Your task to perform on an android device: Add dell xps to the cart on newegg.com Image 0: 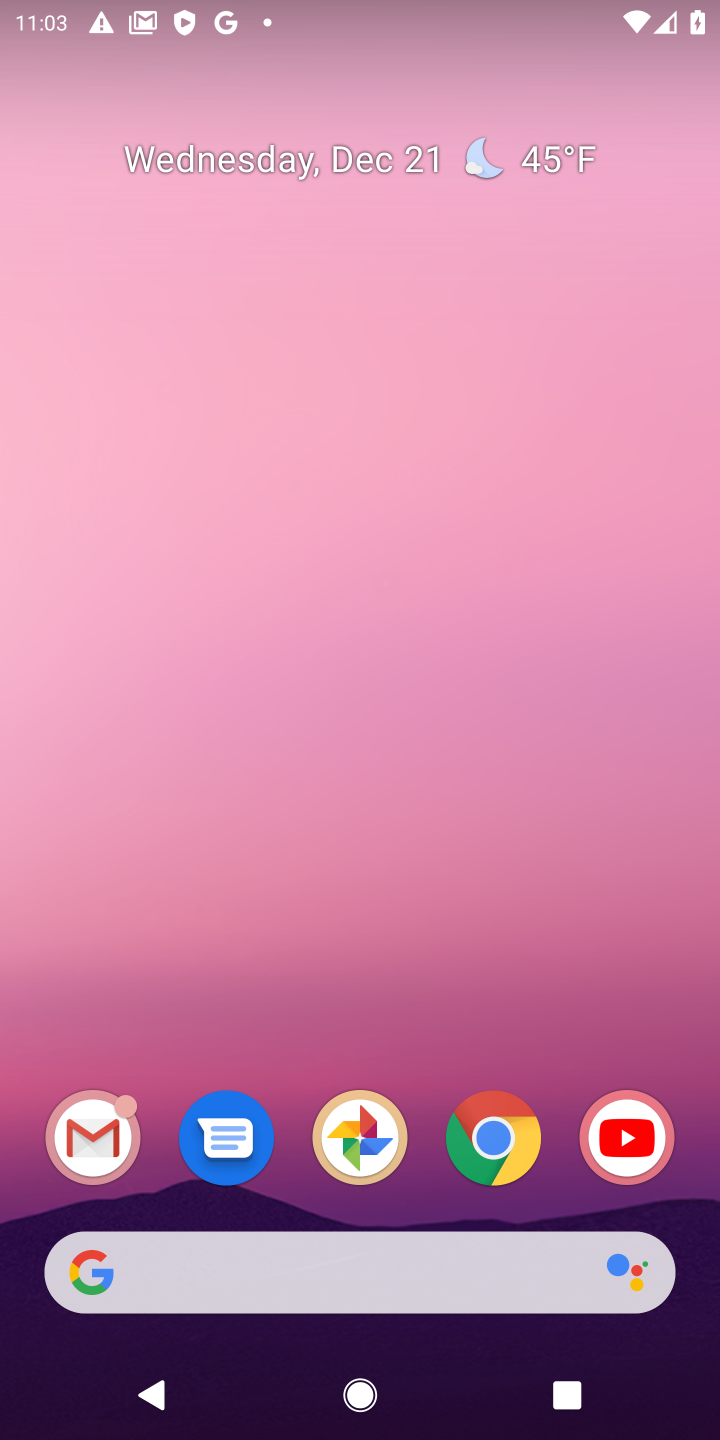
Step 0: click (493, 1156)
Your task to perform on an android device: Add dell xps to the cart on newegg.com Image 1: 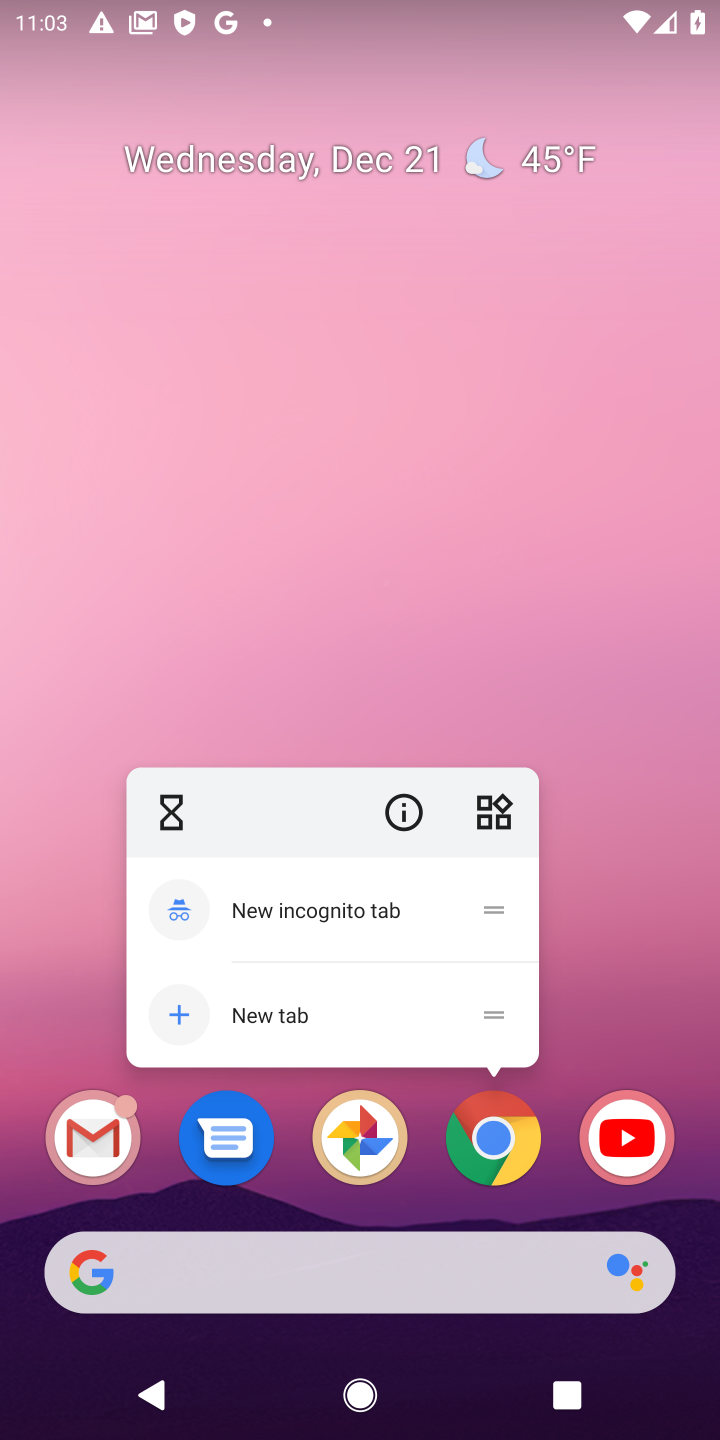
Step 1: click (502, 1136)
Your task to perform on an android device: Add dell xps to the cart on newegg.com Image 2: 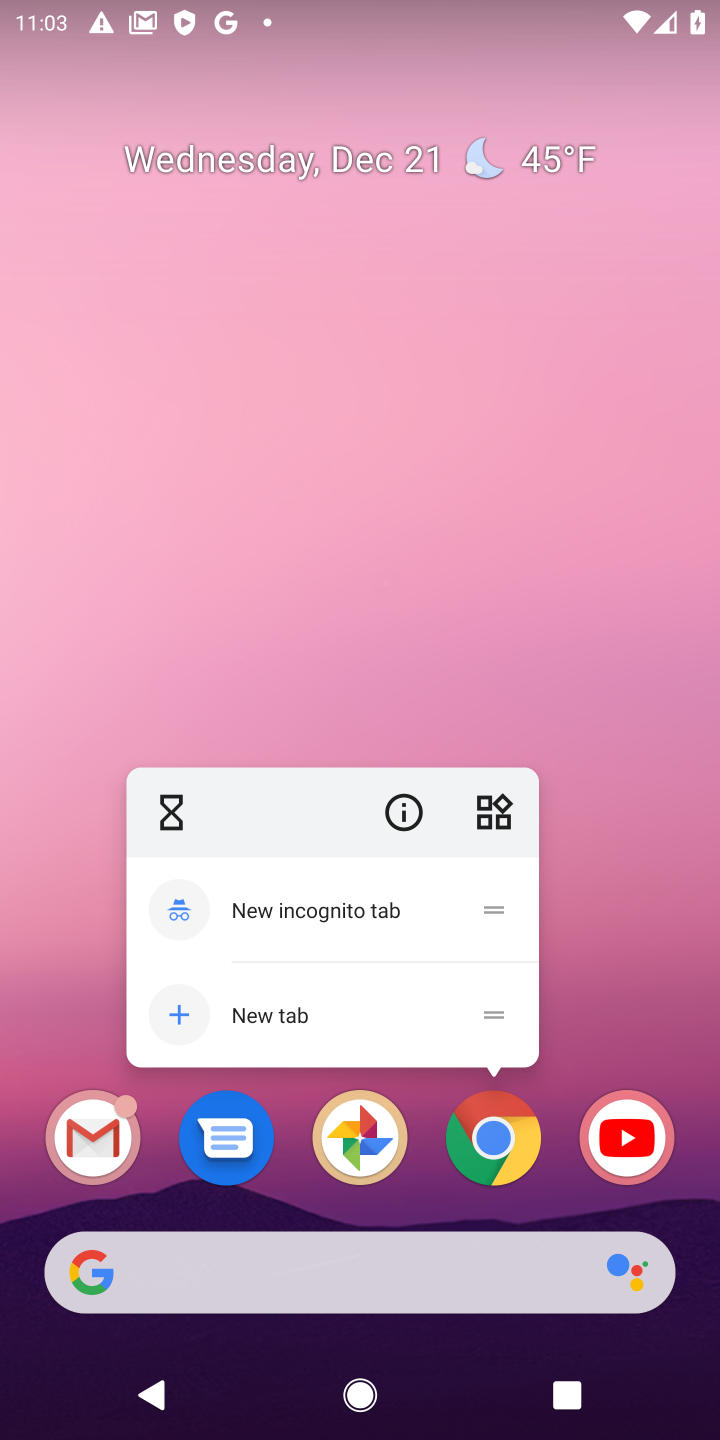
Step 2: click (502, 1152)
Your task to perform on an android device: Add dell xps to the cart on newegg.com Image 3: 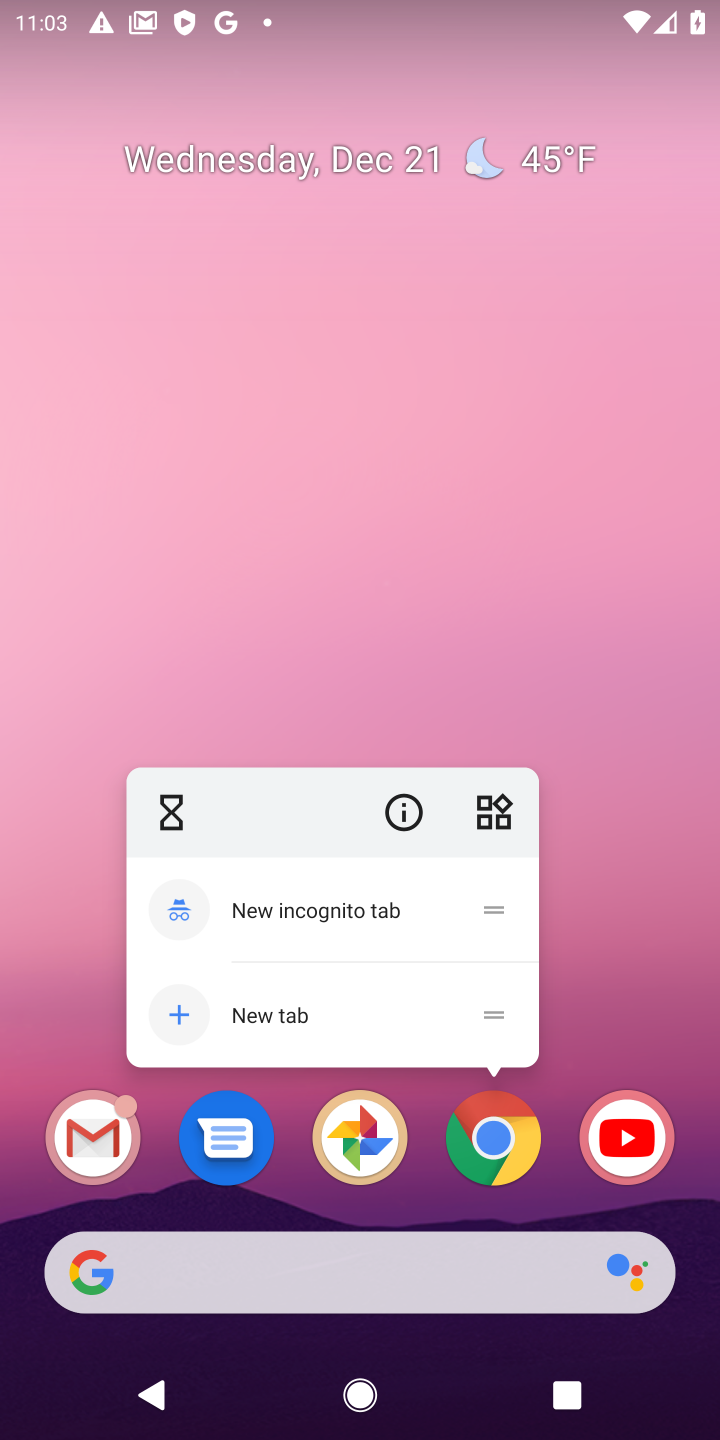
Step 3: click (502, 1152)
Your task to perform on an android device: Add dell xps to the cart on newegg.com Image 4: 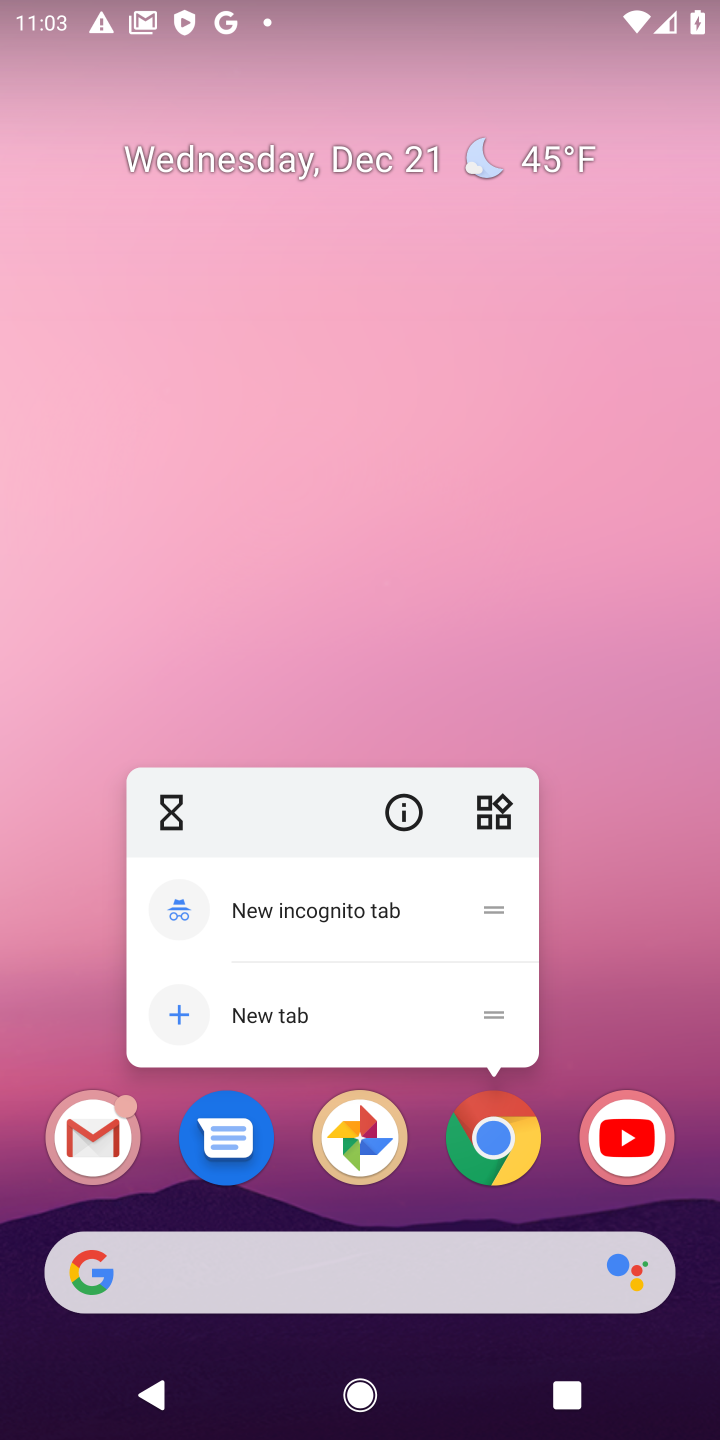
Step 4: click (494, 1159)
Your task to perform on an android device: Add dell xps to the cart on newegg.com Image 5: 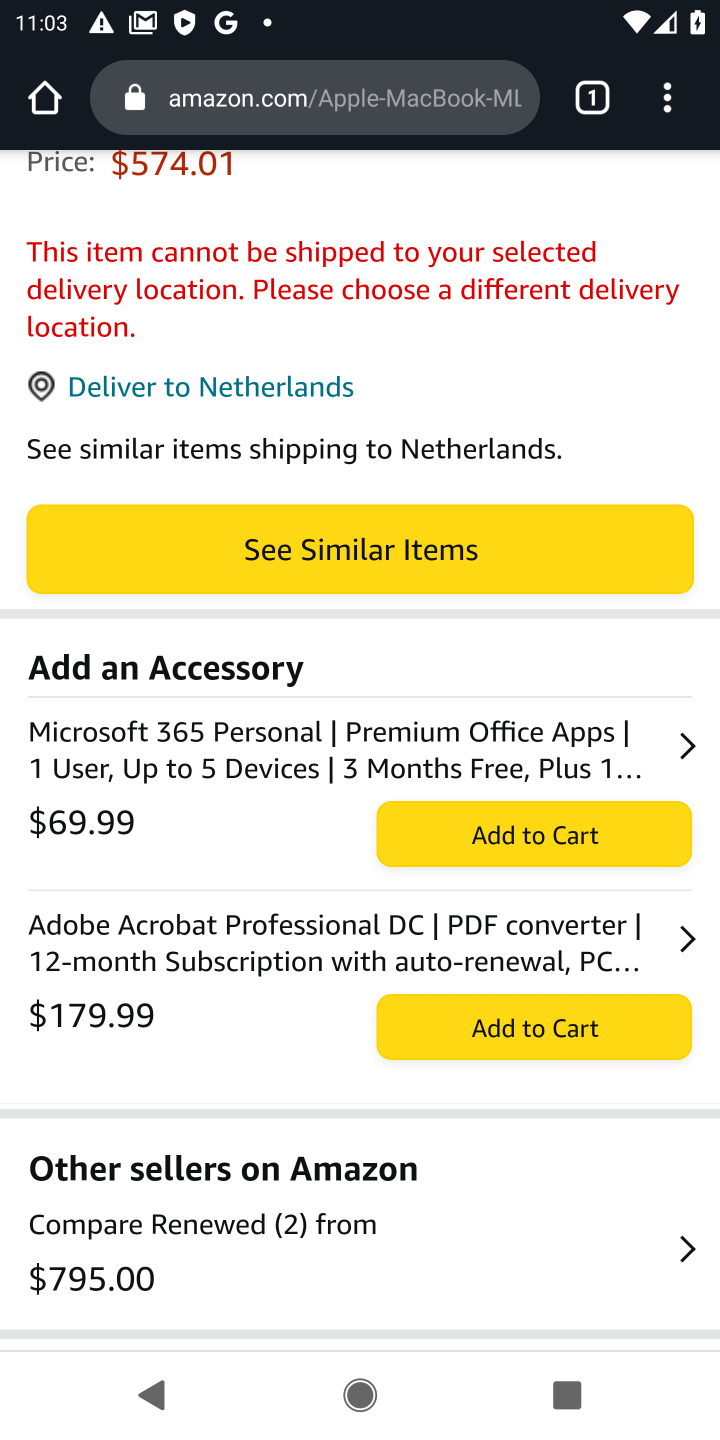
Step 5: click (262, 108)
Your task to perform on an android device: Add dell xps to the cart on newegg.com Image 6: 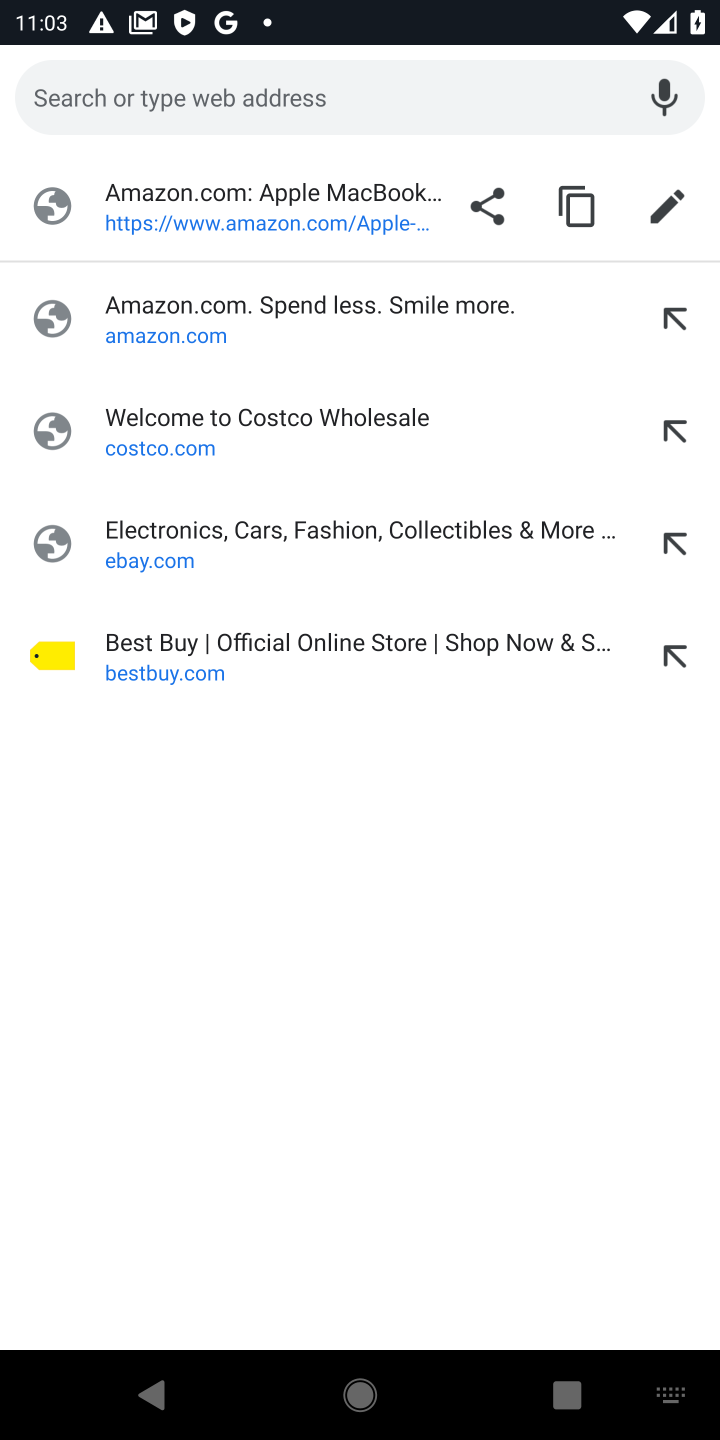
Step 6: type "newegg.com"
Your task to perform on an android device: Add dell xps to the cart on newegg.com Image 7: 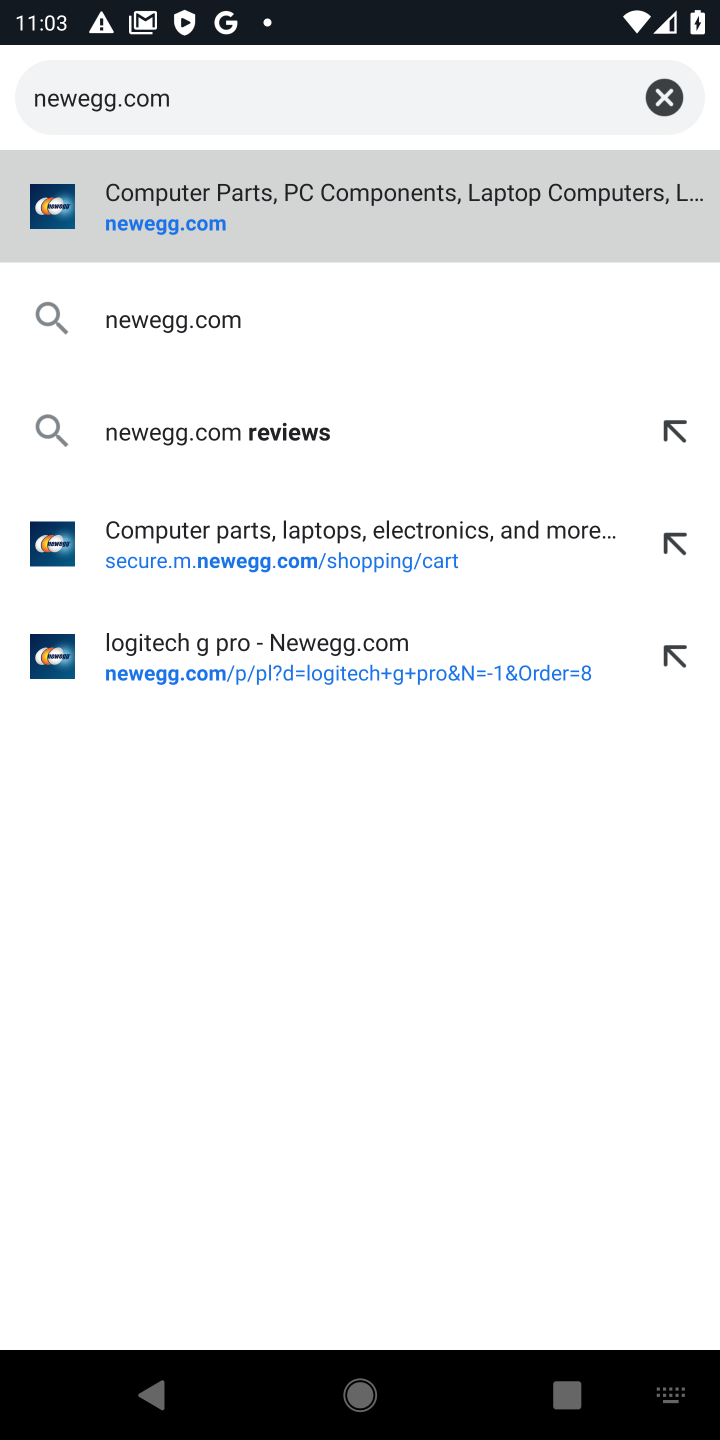
Step 7: click (163, 224)
Your task to perform on an android device: Add dell xps to the cart on newegg.com Image 8: 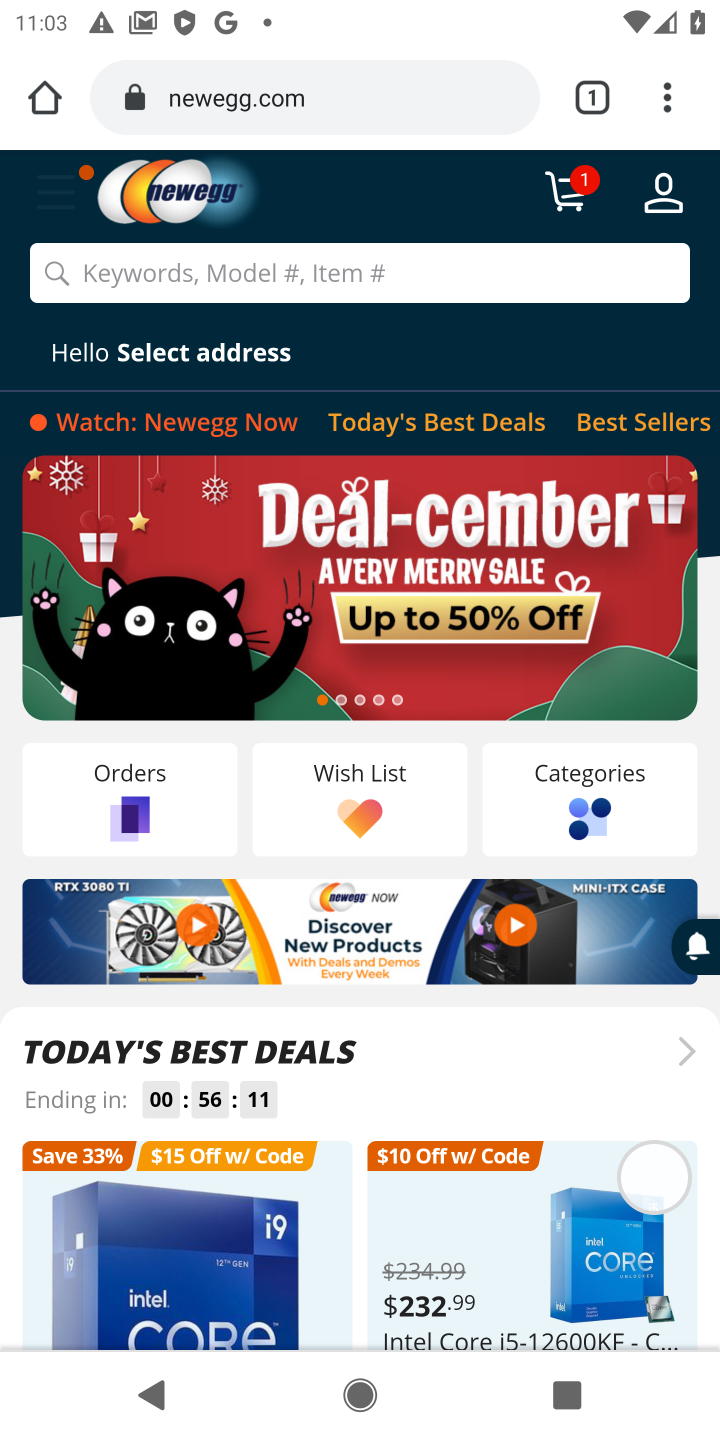
Step 8: click (160, 270)
Your task to perform on an android device: Add dell xps to the cart on newegg.com Image 9: 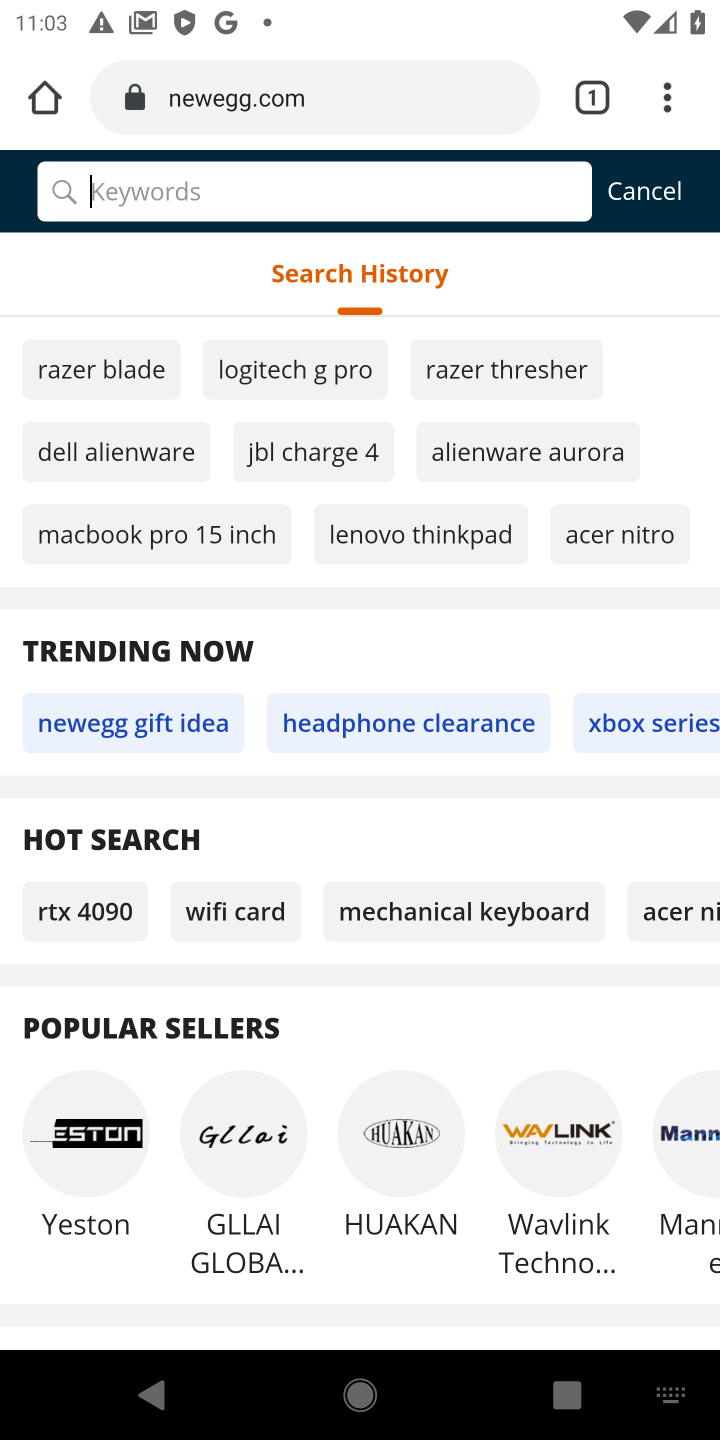
Step 9: type "dell xps"
Your task to perform on an android device: Add dell xps to the cart on newegg.com Image 10: 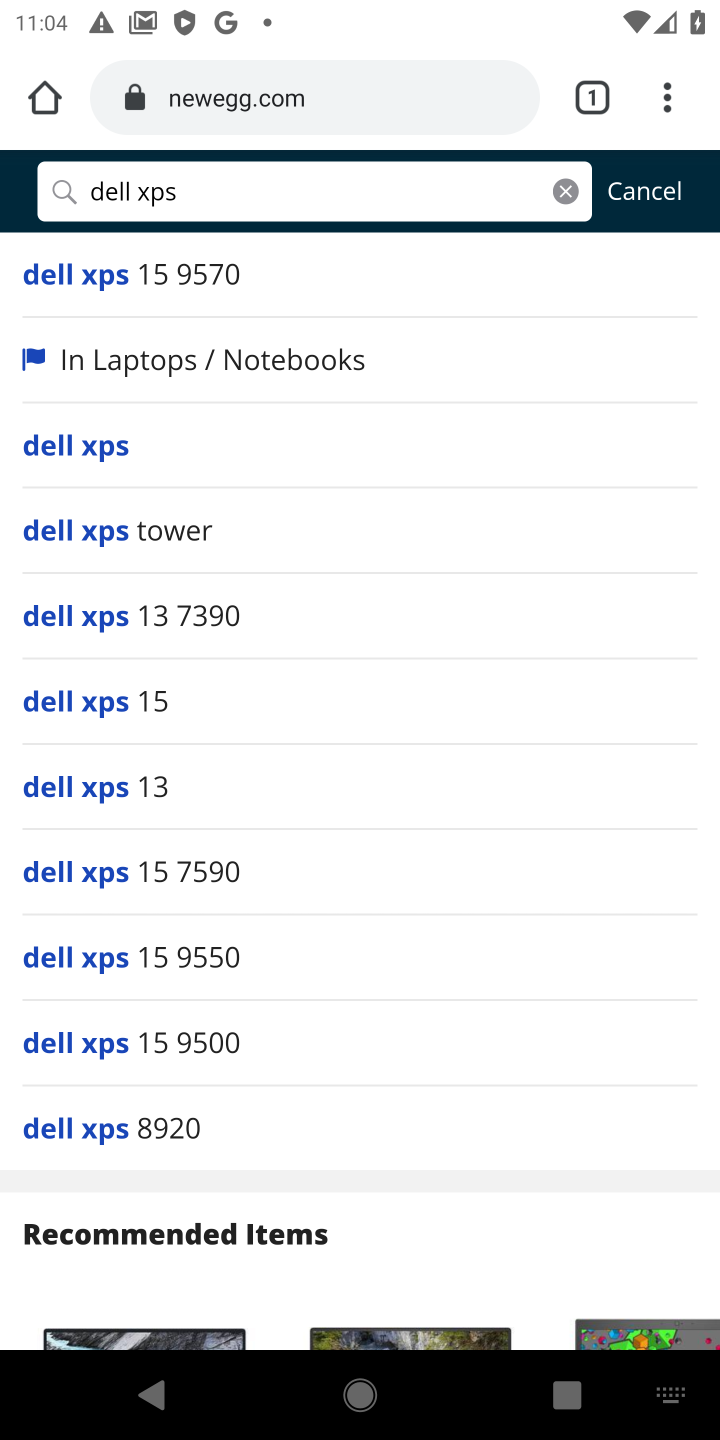
Step 10: click (104, 449)
Your task to perform on an android device: Add dell xps to the cart on newegg.com Image 11: 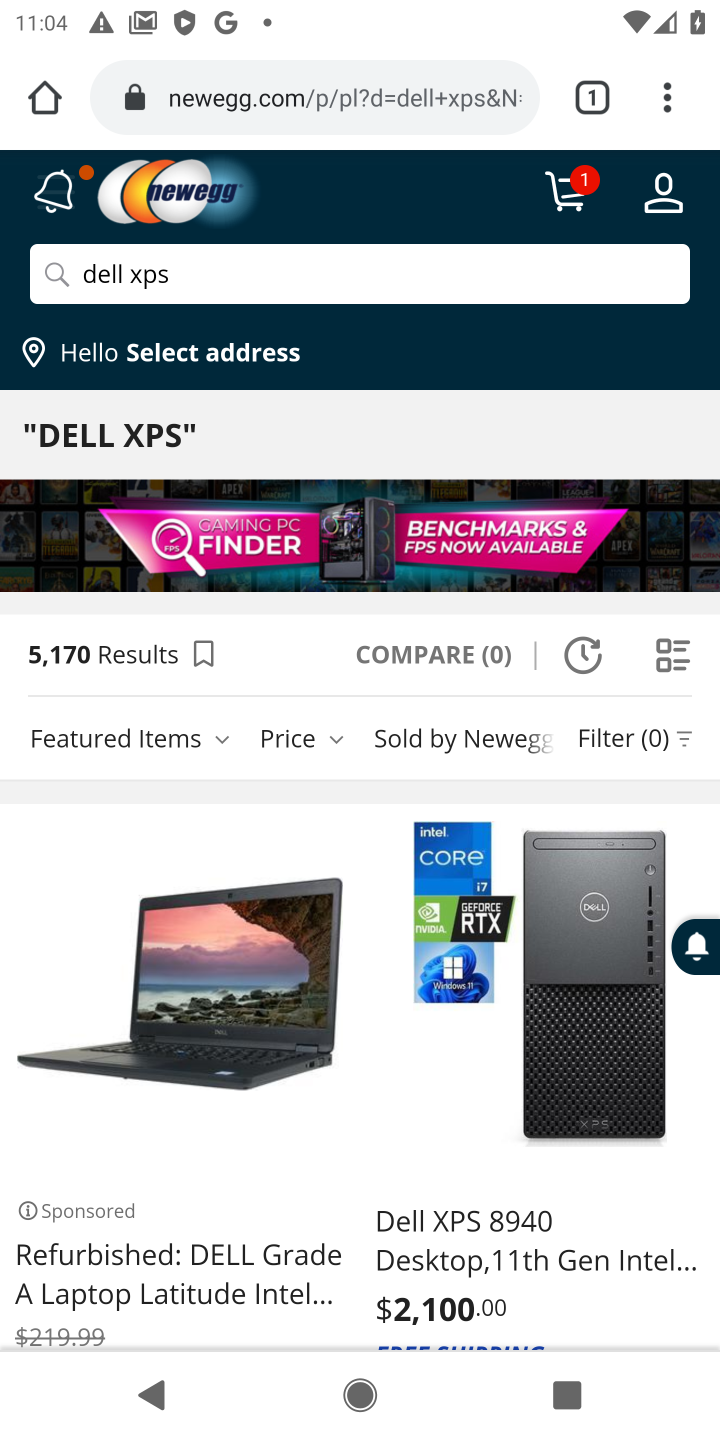
Step 11: drag from (224, 872) to (285, 408)
Your task to perform on an android device: Add dell xps to the cart on newegg.com Image 12: 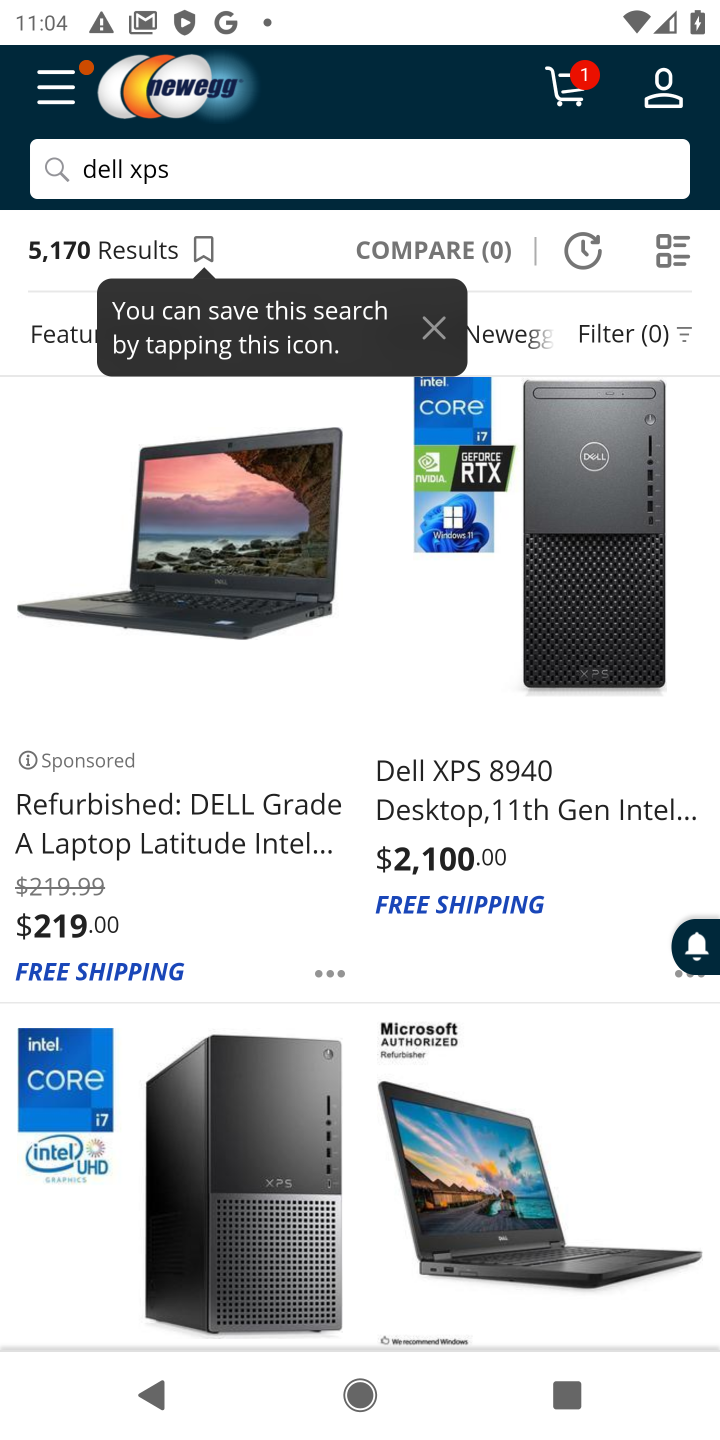
Step 12: click (515, 797)
Your task to perform on an android device: Add dell xps to the cart on newegg.com Image 13: 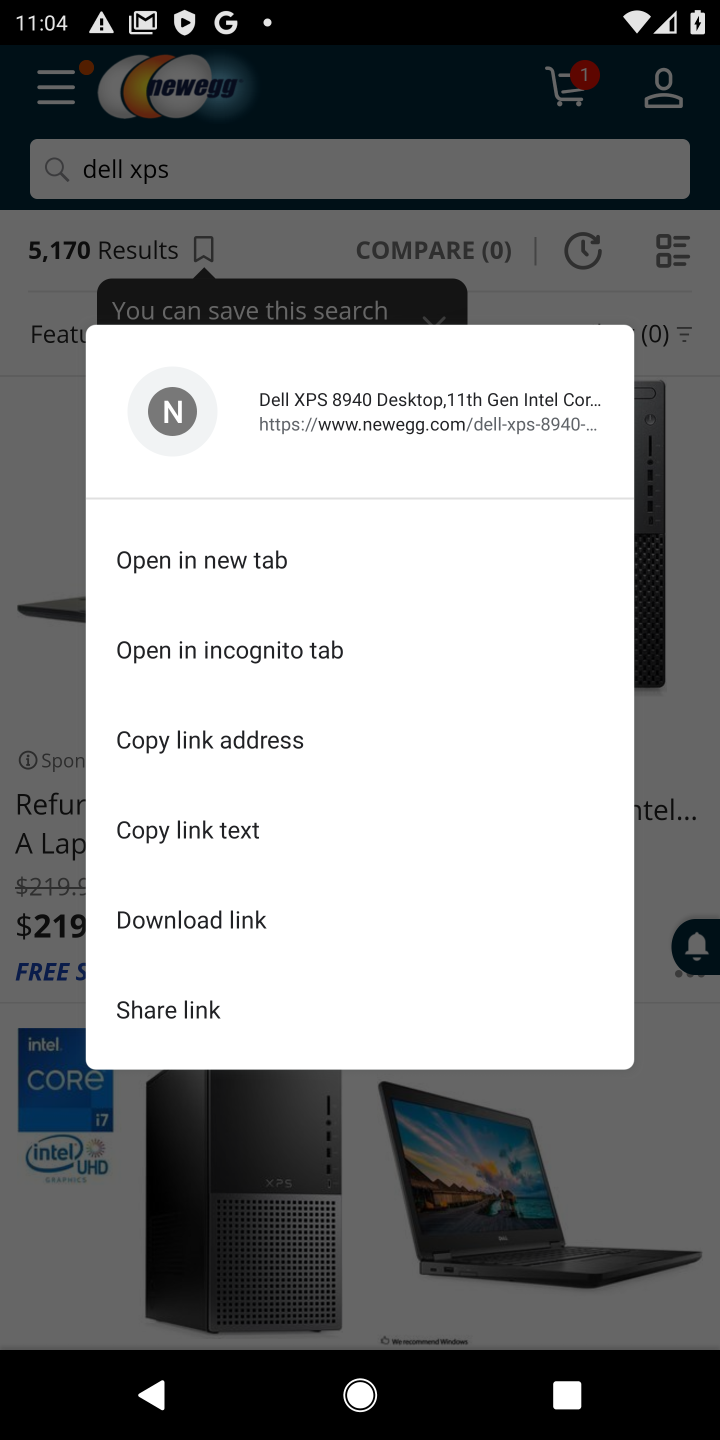
Step 13: click (681, 814)
Your task to perform on an android device: Add dell xps to the cart on newegg.com Image 14: 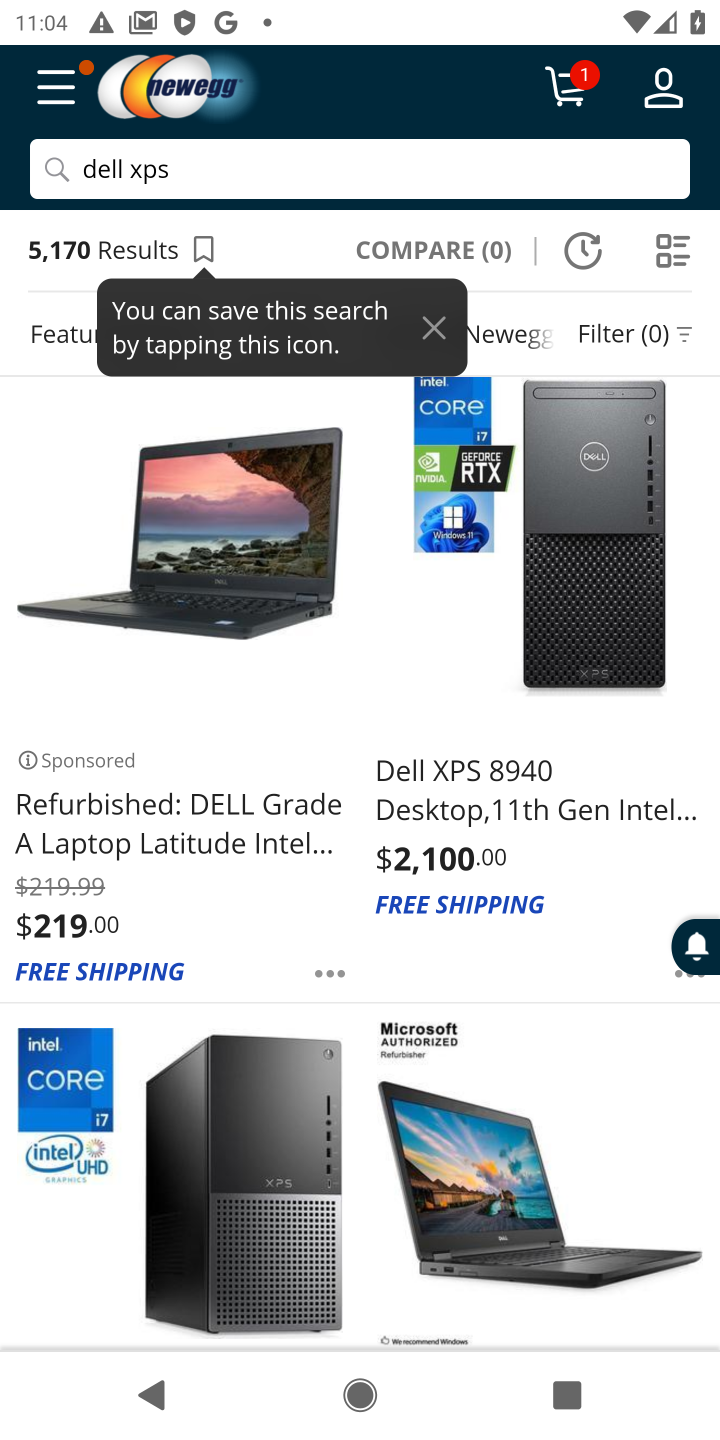
Step 14: click (474, 818)
Your task to perform on an android device: Add dell xps to the cart on newegg.com Image 15: 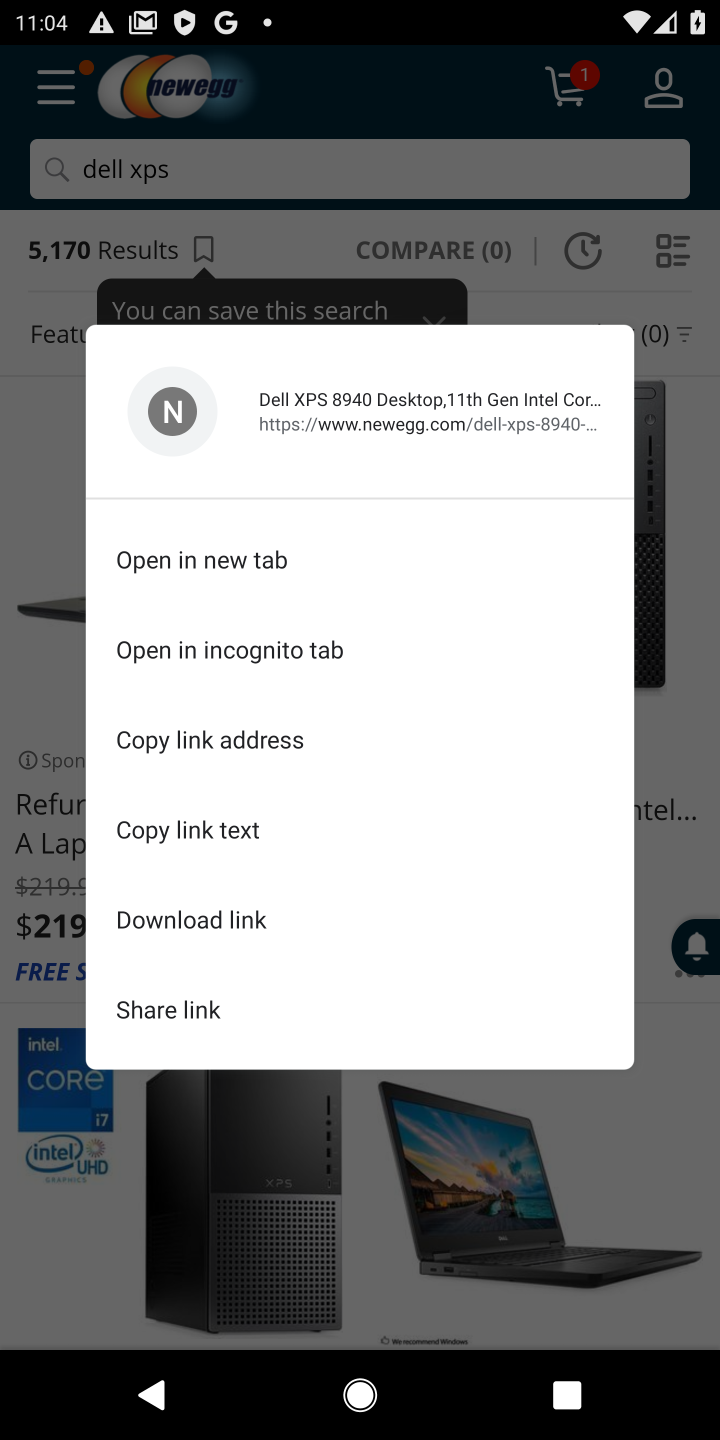
Step 15: click (663, 795)
Your task to perform on an android device: Add dell xps to the cart on newegg.com Image 16: 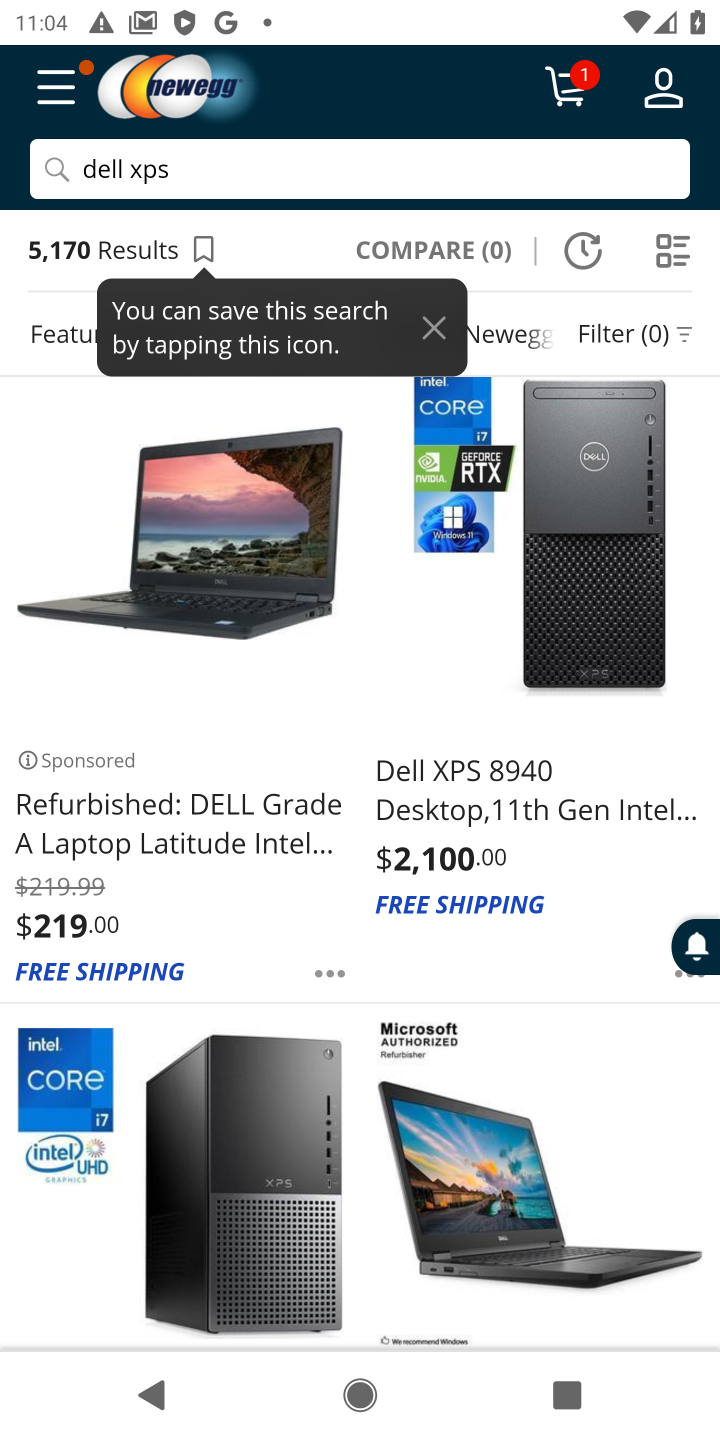
Step 16: click (474, 799)
Your task to perform on an android device: Add dell xps to the cart on newegg.com Image 17: 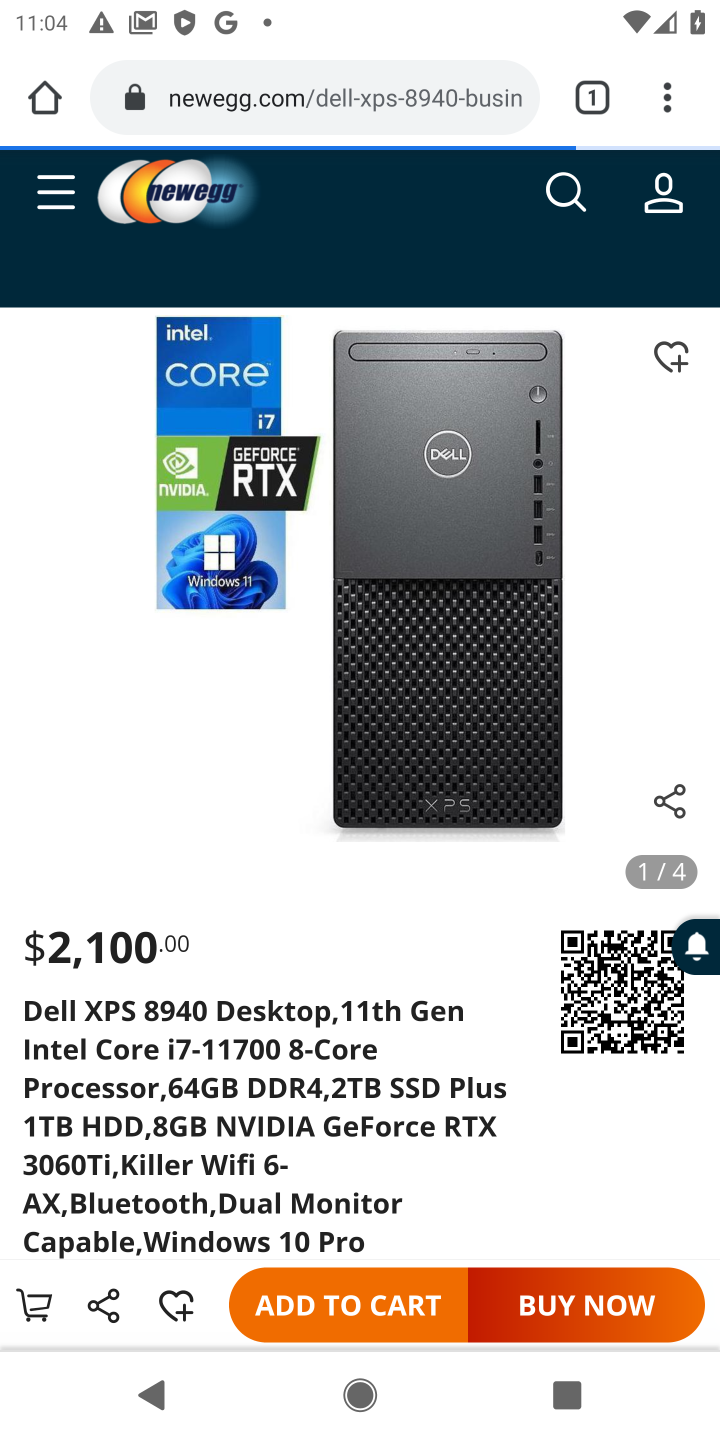
Step 17: click (299, 1319)
Your task to perform on an android device: Add dell xps to the cart on newegg.com Image 18: 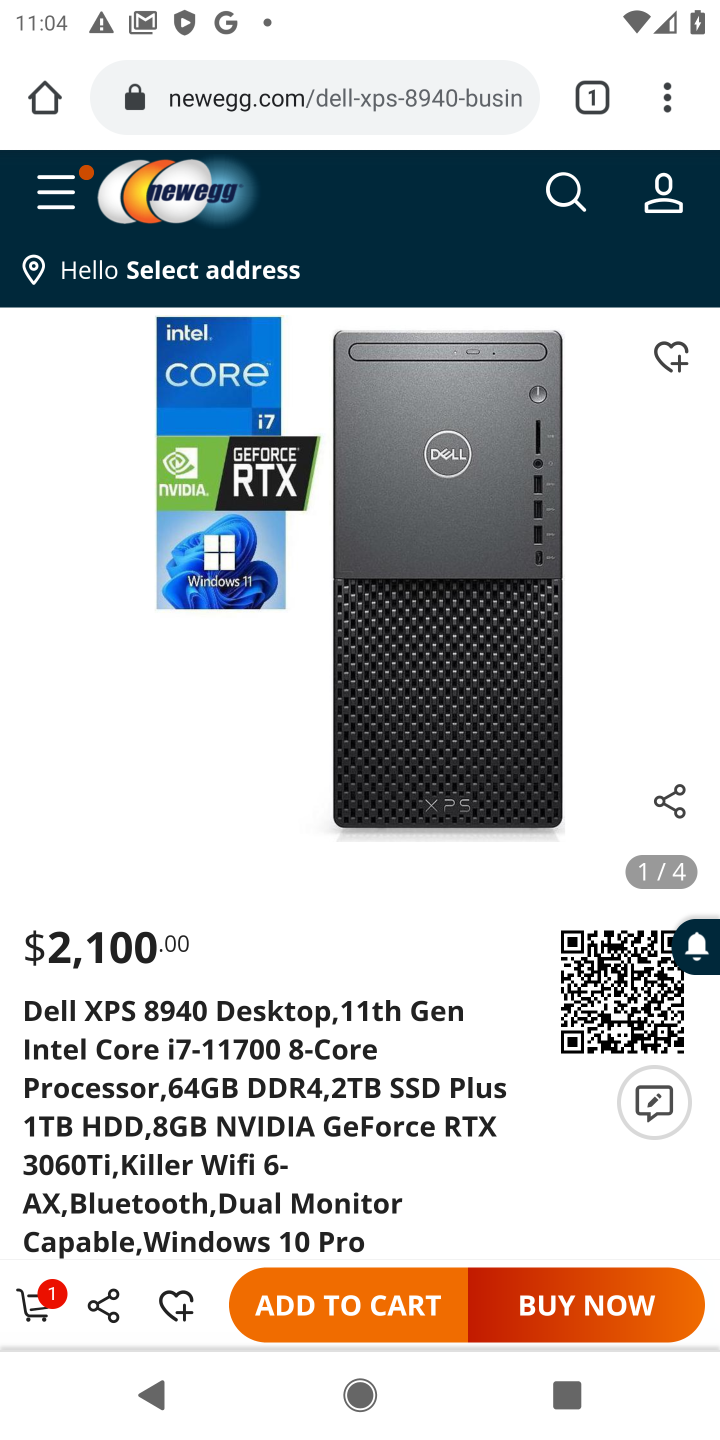
Step 18: click (326, 1308)
Your task to perform on an android device: Add dell xps to the cart on newegg.com Image 19: 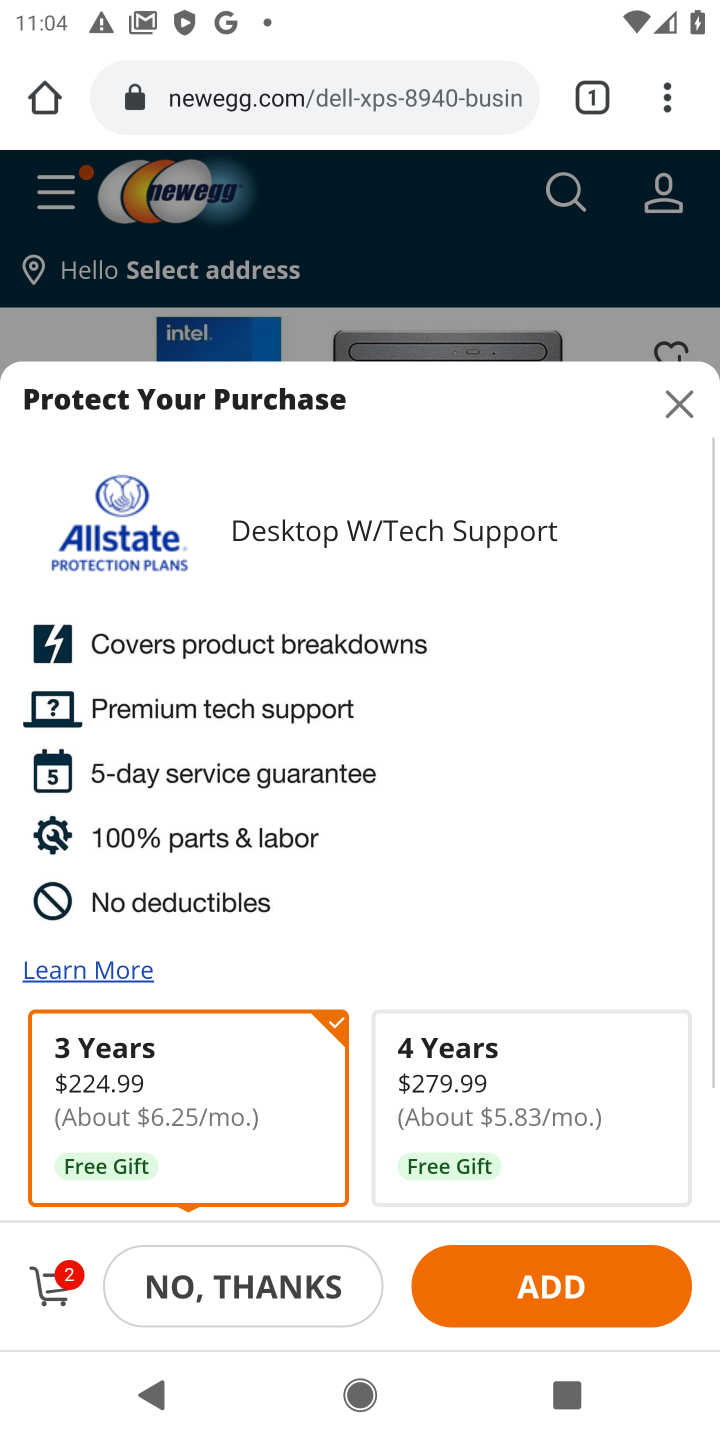
Step 19: task complete